Your task to perform on an android device: turn notification dots off Image 0: 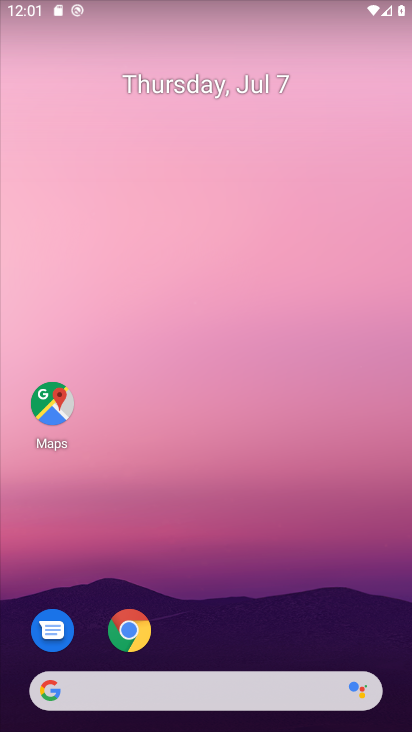
Step 0: drag from (170, 597) to (207, 301)
Your task to perform on an android device: turn notification dots off Image 1: 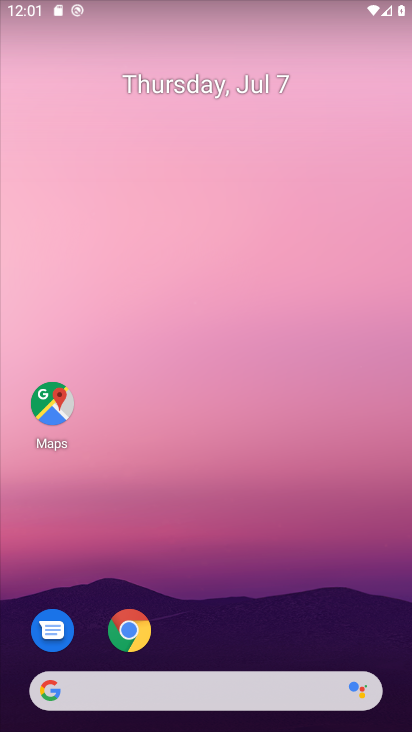
Step 1: drag from (254, 616) to (230, 288)
Your task to perform on an android device: turn notification dots off Image 2: 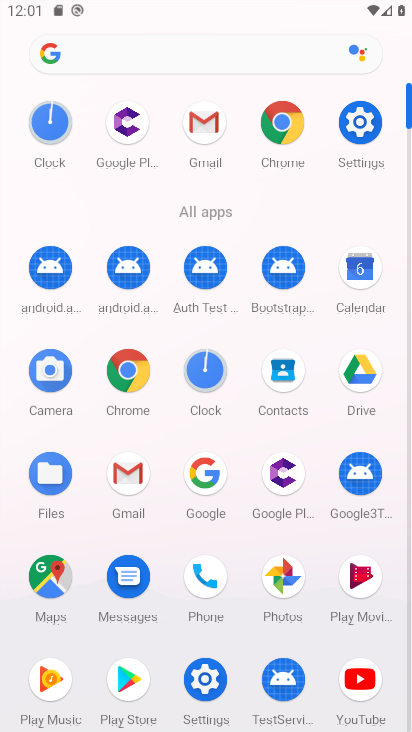
Step 2: click (355, 125)
Your task to perform on an android device: turn notification dots off Image 3: 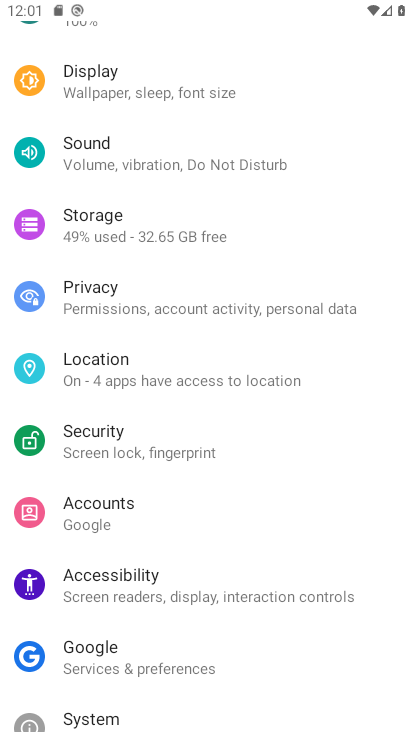
Step 3: drag from (152, 145) to (183, 544)
Your task to perform on an android device: turn notification dots off Image 4: 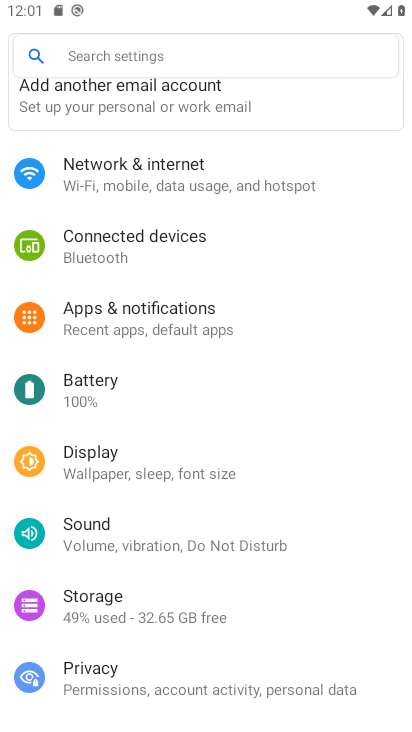
Step 4: click (139, 58)
Your task to perform on an android device: turn notification dots off Image 5: 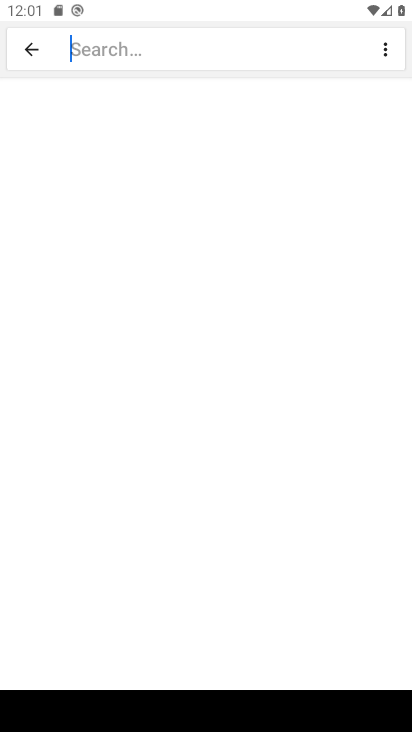
Step 5: type " notification dots  "
Your task to perform on an android device: turn notification dots off Image 6: 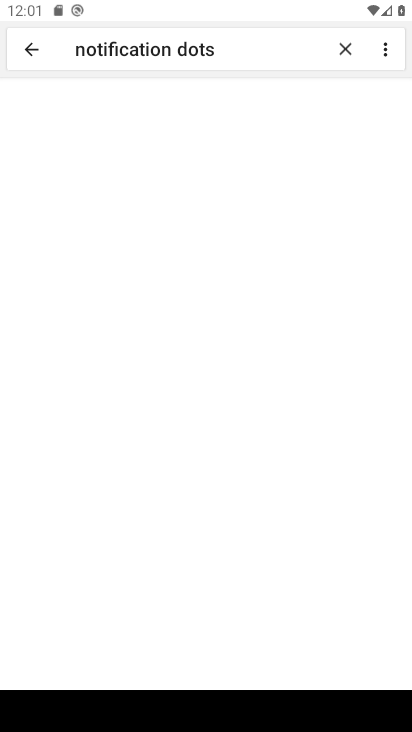
Step 6: click (238, 38)
Your task to perform on an android device: turn notification dots off Image 7: 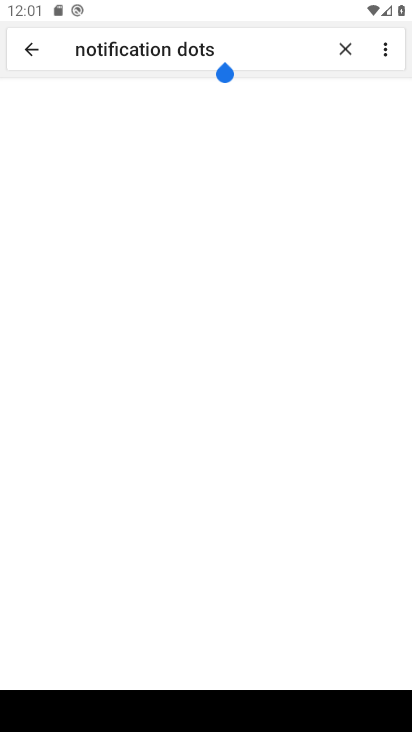
Step 7: click (238, 38)
Your task to perform on an android device: turn notification dots off Image 8: 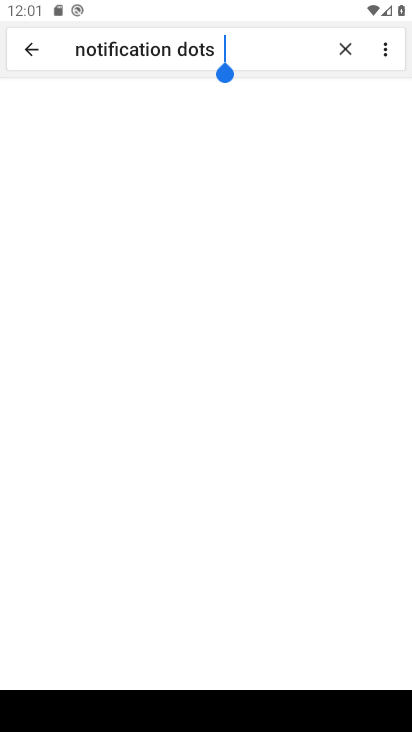
Step 8: click (238, 38)
Your task to perform on an android device: turn notification dots off Image 9: 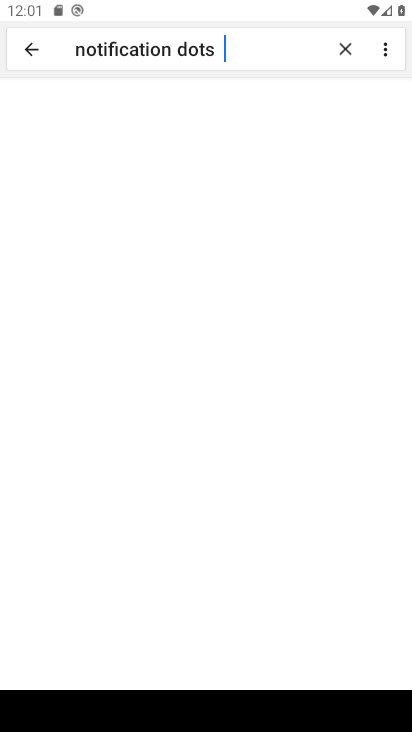
Step 9: click (238, 54)
Your task to perform on an android device: turn notification dots off Image 10: 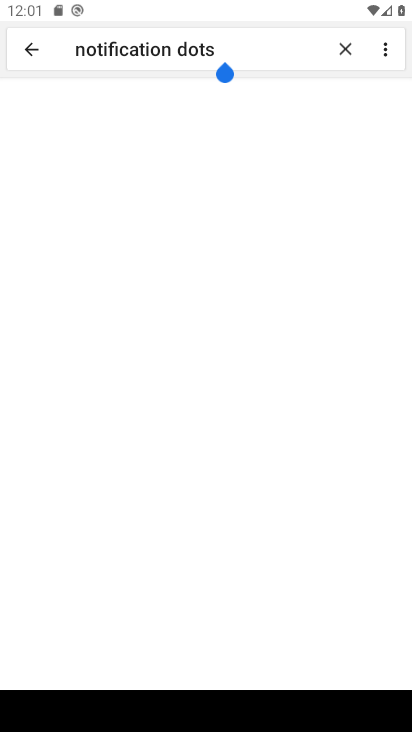
Step 10: click (238, 54)
Your task to perform on an android device: turn notification dots off Image 11: 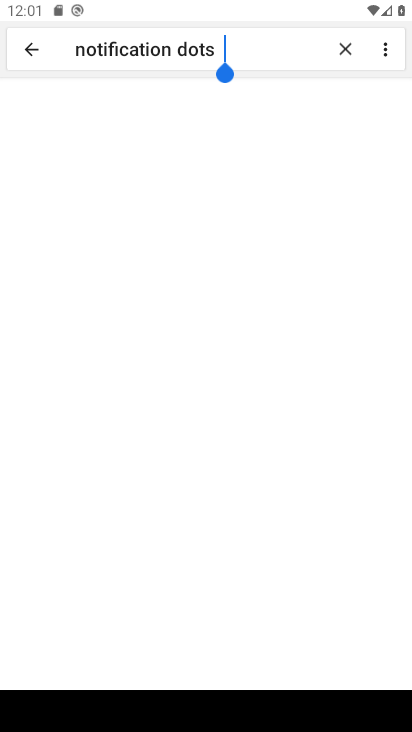
Step 11: click (198, 46)
Your task to perform on an android device: turn notification dots off Image 12: 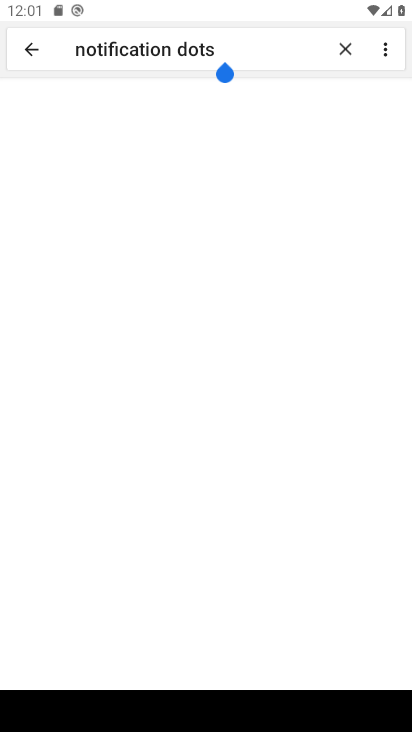
Step 12: click (198, 46)
Your task to perform on an android device: turn notification dots off Image 13: 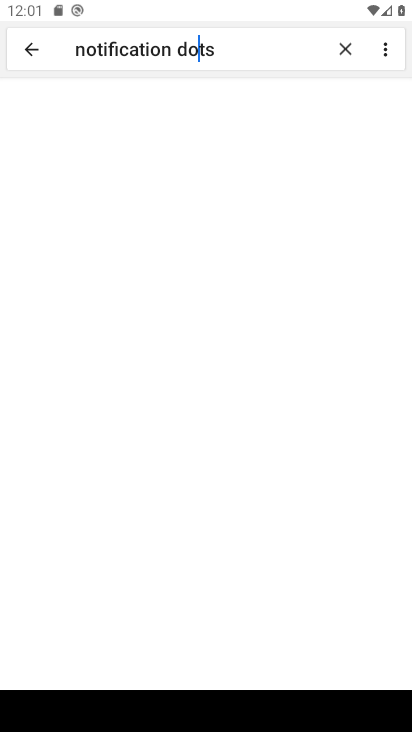
Step 13: click (198, 46)
Your task to perform on an android device: turn notification dots off Image 14: 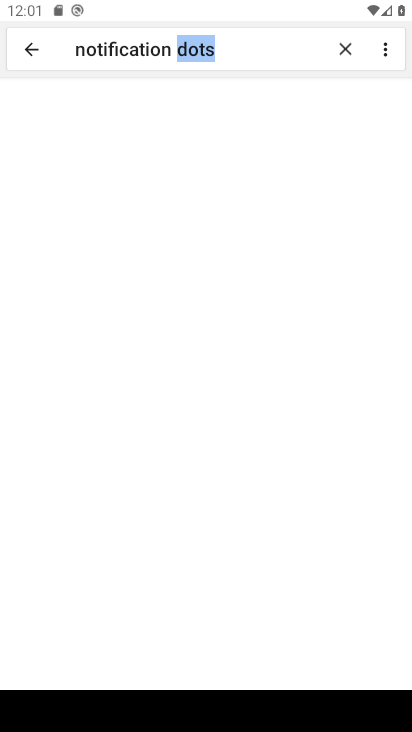
Step 14: click (198, 46)
Your task to perform on an android device: turn notification dots off Image 15: 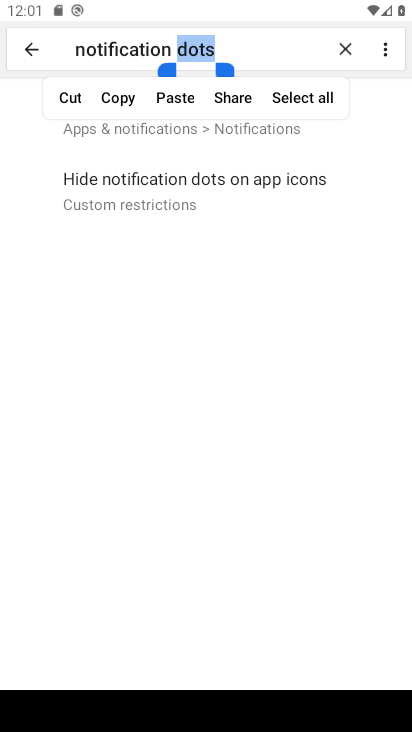
Step 15: click (247, 231)
Your task to perform on an android device: turn notification dots off Image 16: 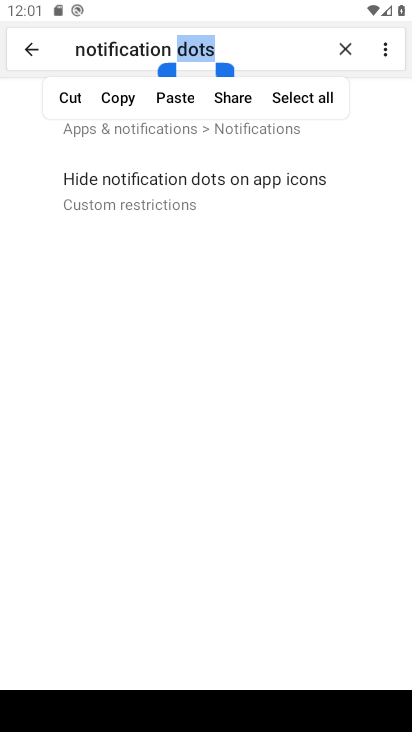
Step 16: click (201, 141)
Your task to perform on an android device: turn notification dots off Image 17: 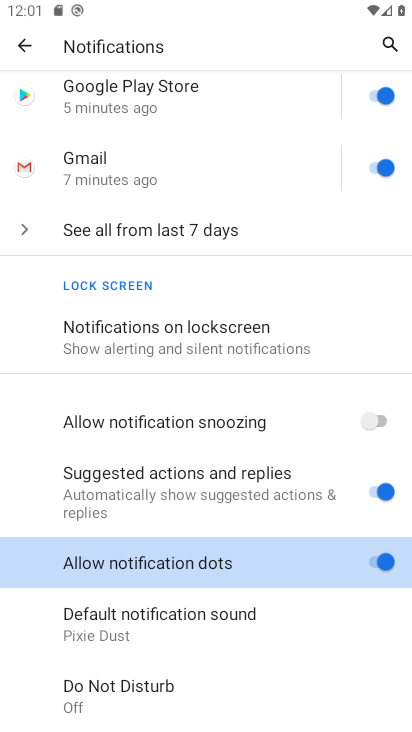
Step 17: click (386, 552)
Your task to perform on an android device: turn notification dots off Image 18: 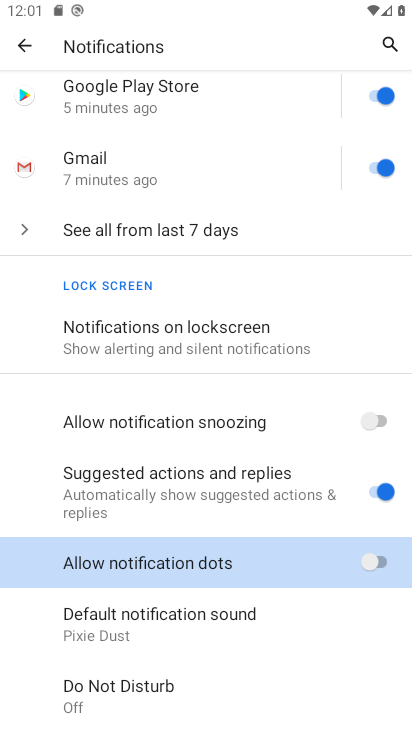
Step 18: task complete